Your task to perform on an android device: Open Google Chrome and click the shortcut for Amazon.com Image 0: 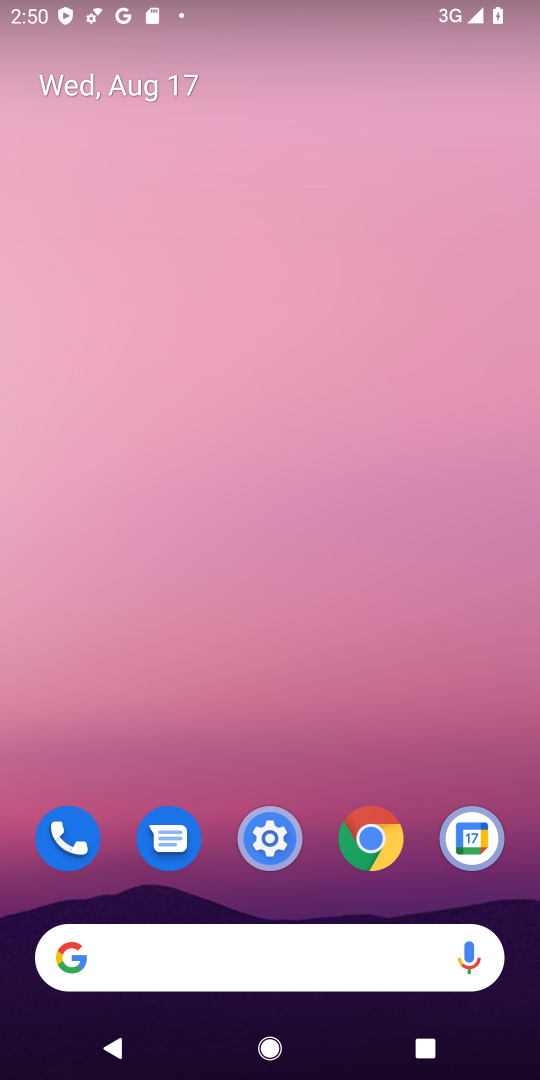
Step 0: click (375, 839)
Your task to perform on an android device: Open Google Chrome and click the shortcut for Amazon.com Image 1: 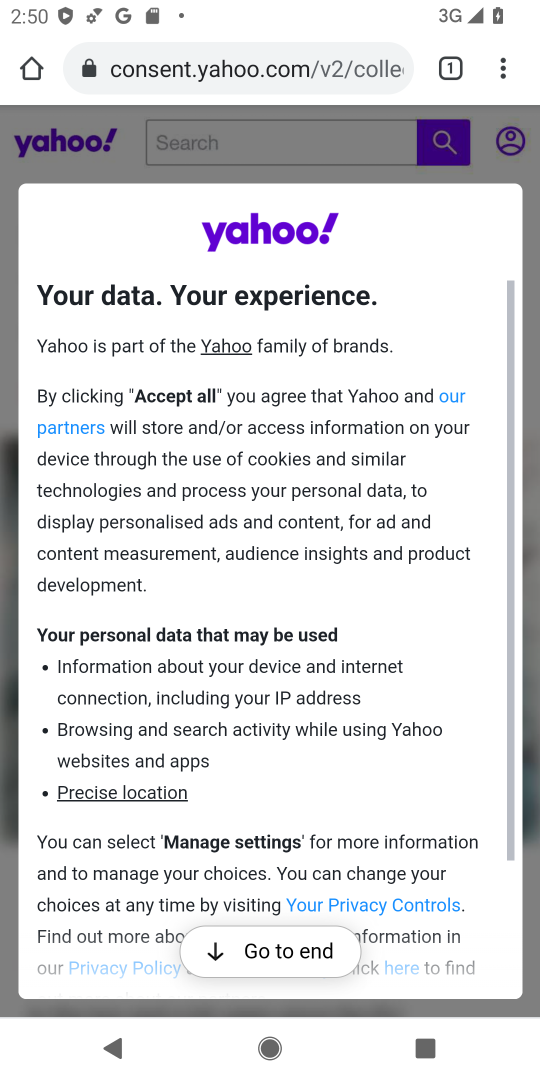
Step 1: click (449, 64)
Your task to perform on an android device: Open Google Chrome and click the shortcut for Amazon.com Image 2: 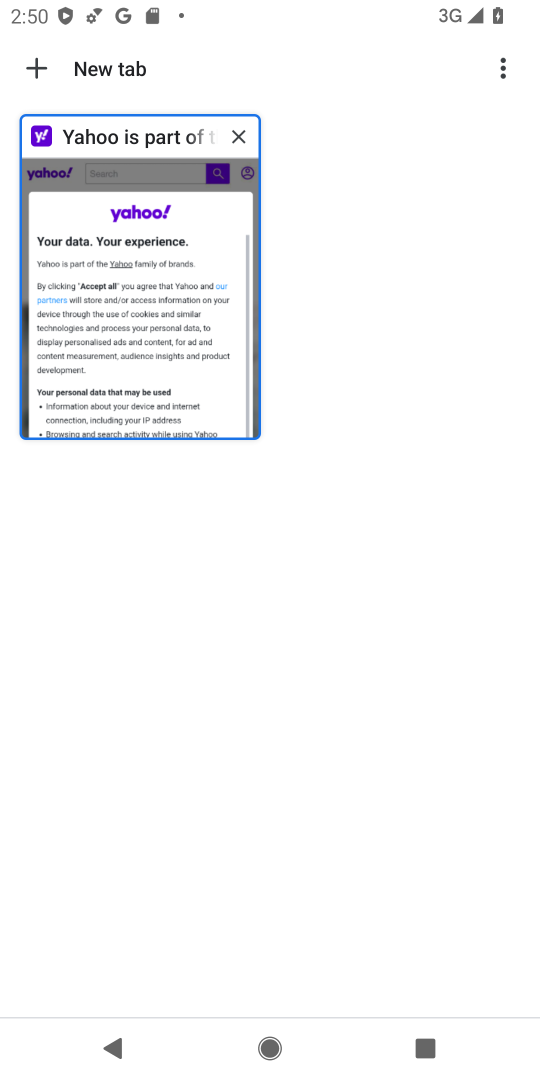
Step 2: click (34, 68)
Your task to perform on an android device: Open Google Chrome and click the shortcut for Amazon.com Image 3: 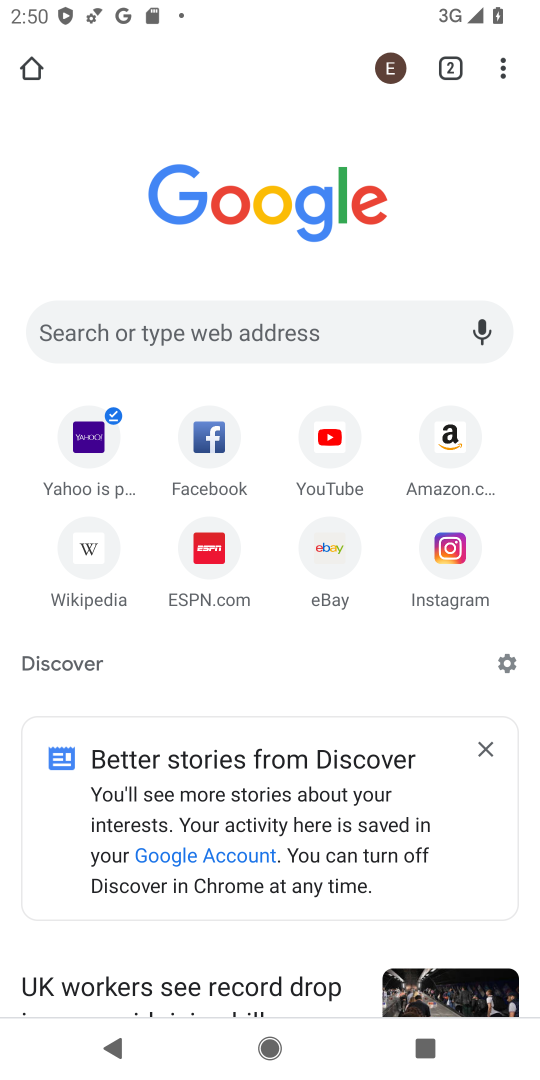
Step 3: click (458, 436)
Your task to perform on an android device: Open Google Chrome and click the shortcut for Amazon.com Image 4: 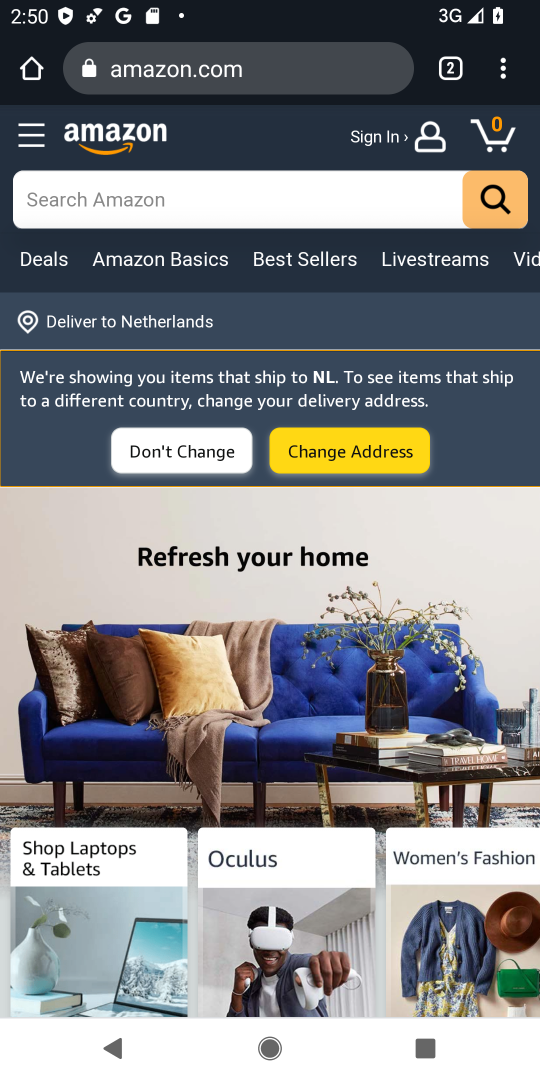
Step 4: task complete